Your task to perform on an android device: change the clock display to digital Image 0: 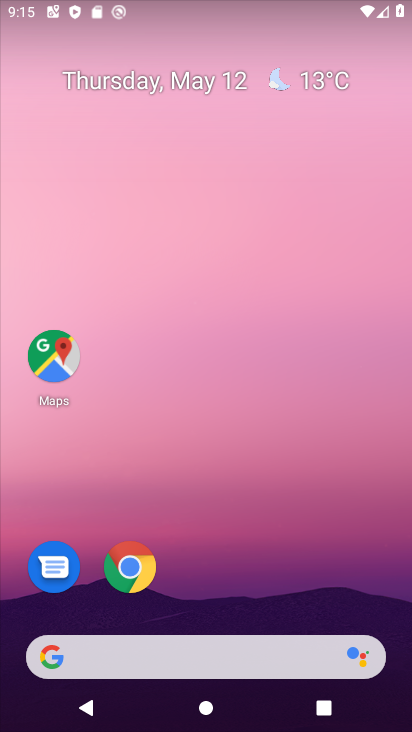
Step 0: press home button
Your task to perform on an android device: change the clock display to digital Image 1: 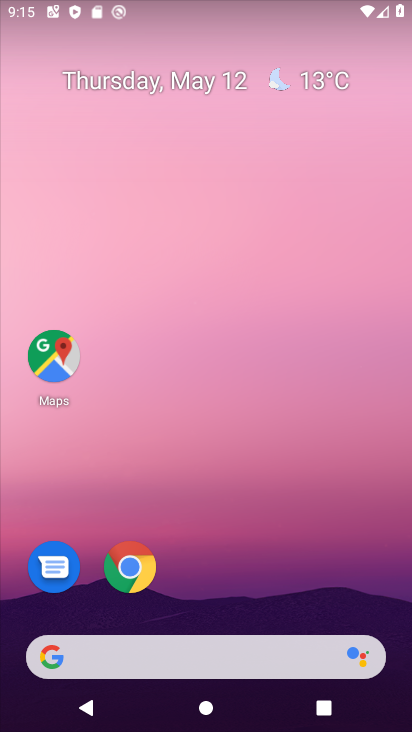
Step 1: drag from (220, 610) to (263, 80)
Your task to perform on an android device: change the clock display to digital Image 2: 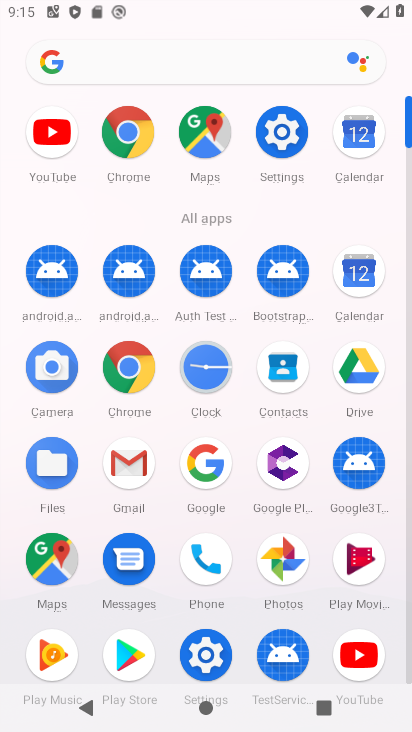
Step 2: click (205, 360)
Your task to perform on an android device: change the clock display to digital Image 3: 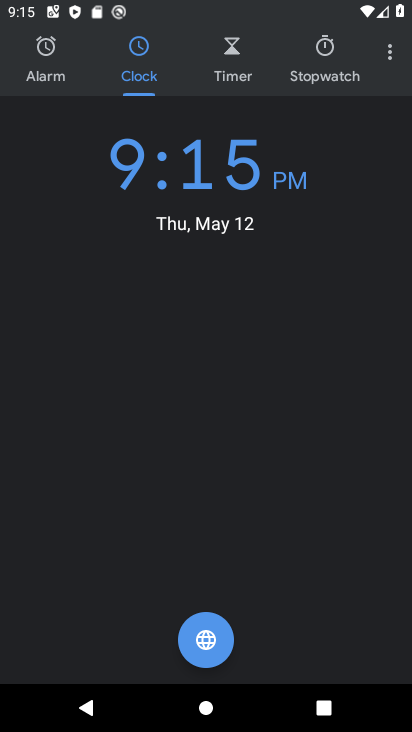
Step 3: click (392, 49)
Your task to perform on an android device: change the clock display to digital Image 4: 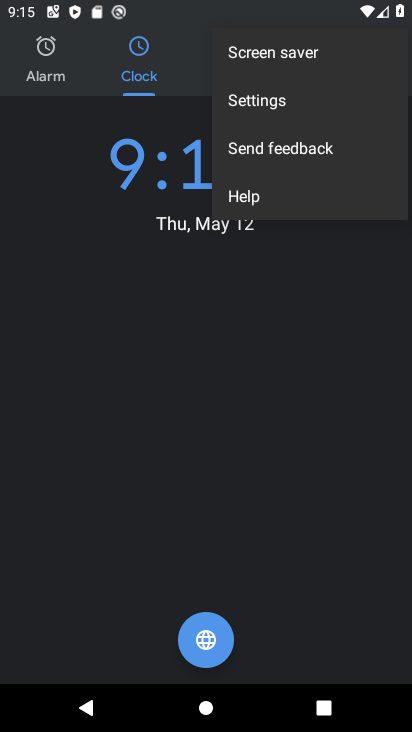
Step 4: click (298, 101)
Your task to perform on an android device: change the clock display to digital Image 5: 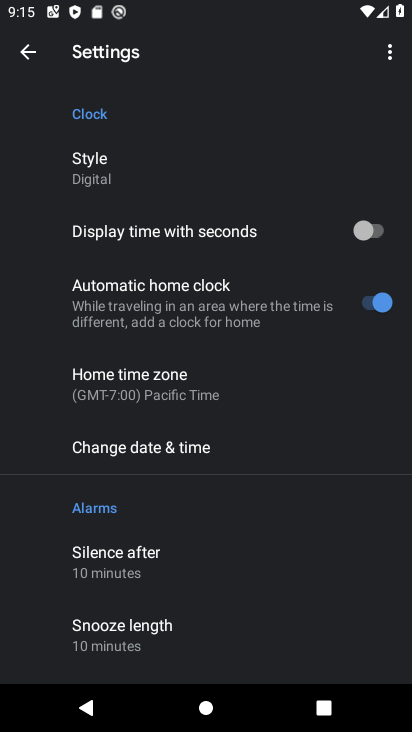
Step 5: click (126, 171)
Your task to perform on an android device: change the clock display to digital Image 6: 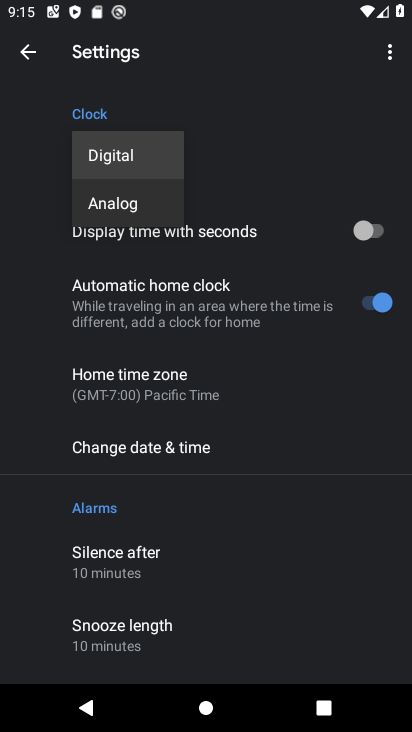
Step 6: click (150, 162)
Your task to perform on an android device: change the clock display to digital Image 7: 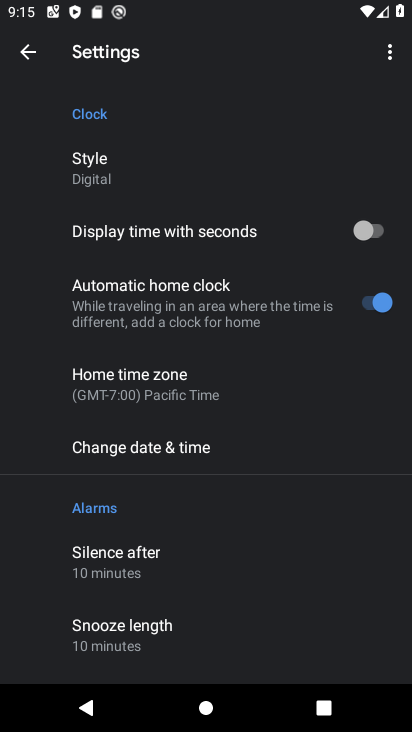
Step 7: task complete